Your task to perform on an android device: turn off sleep mode Image 0: 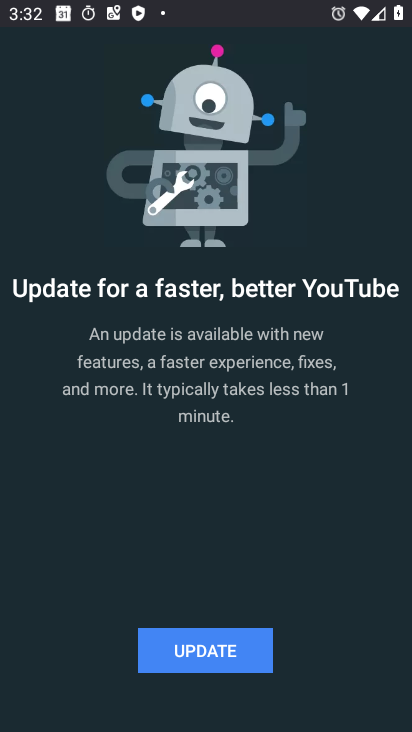
Step 0: press home button
Your task to perform on an android device: turn off sleep mode Image 1: 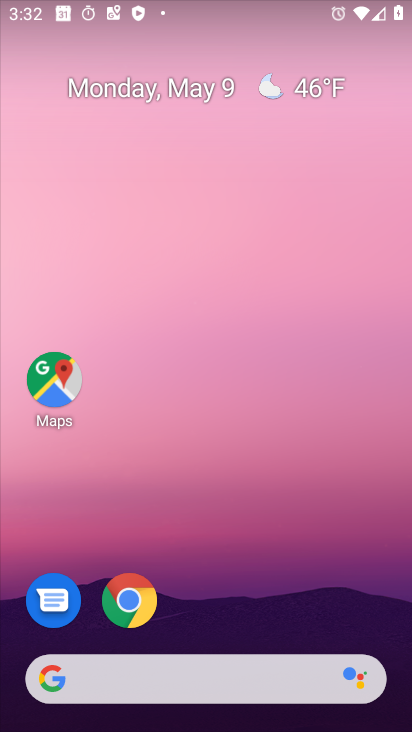
Step 1: drag from (268, 593) to (339, 97)
Your task to perform on an android device: turn off sleep mode Image 2: 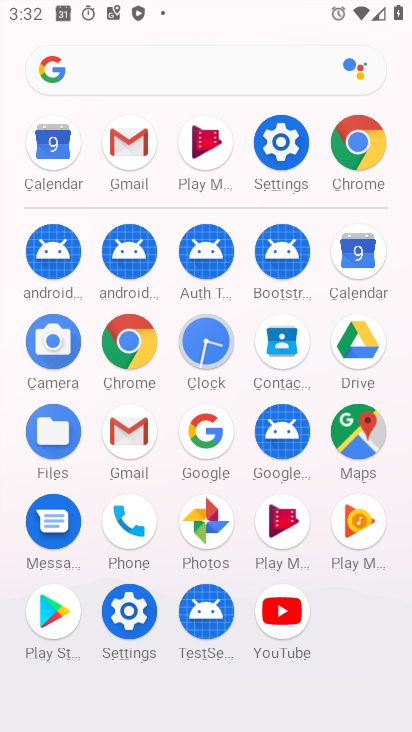
Step 2: click (274, 133)
Your task to perform on an android device: turn off sleep mode Image 3: 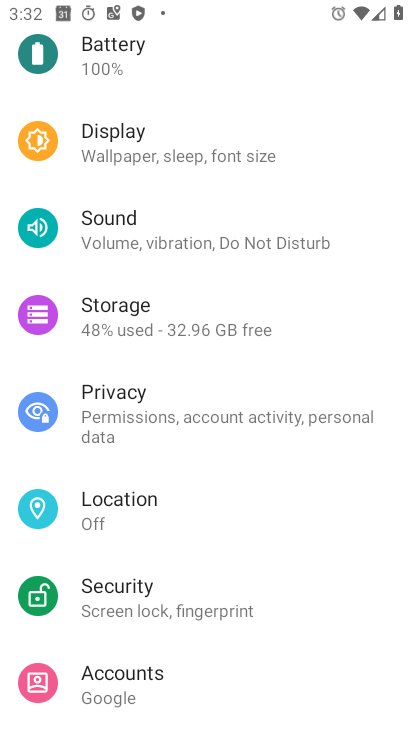
Step 3: drag from (232, 134) to (186, 704)
Your task to perform on an android device: turn off sleep mode Image 4: 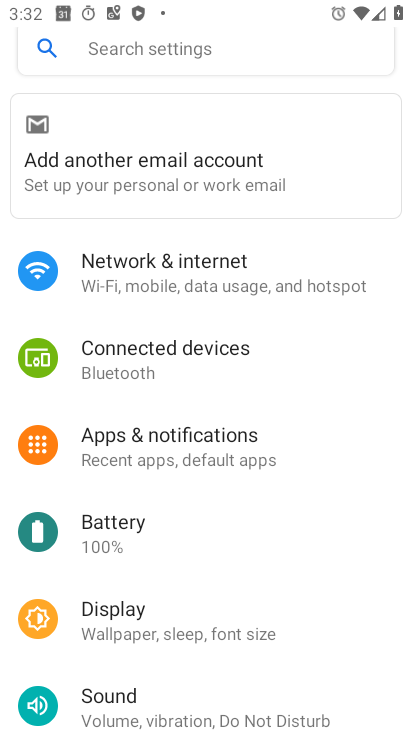
Step 4: click (111, 69)
Your task to perform on an android device: turn off sleep mode Image 5: 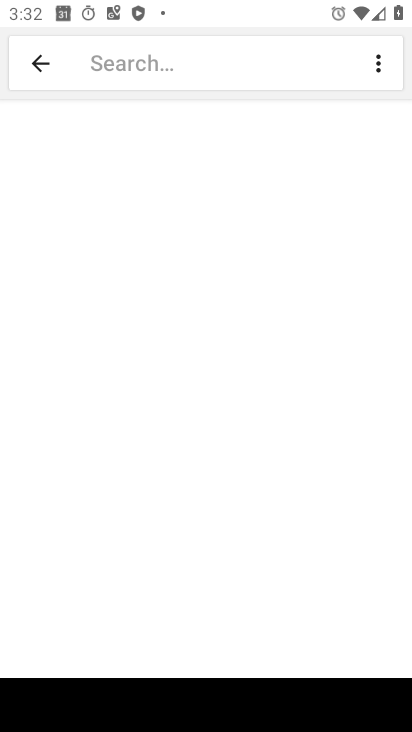
Step 5: type "sleep mode"
Your task to perform on an android device: turn off sleep mode Image 6: 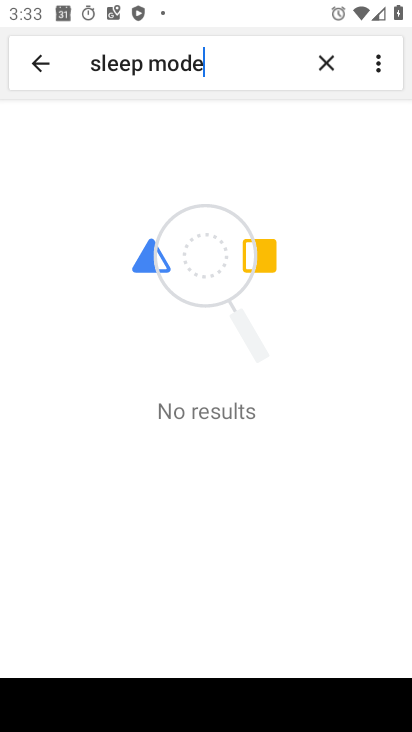
Step 6: task complete